Your task to perform on an android device: Open my contact list Image 0: 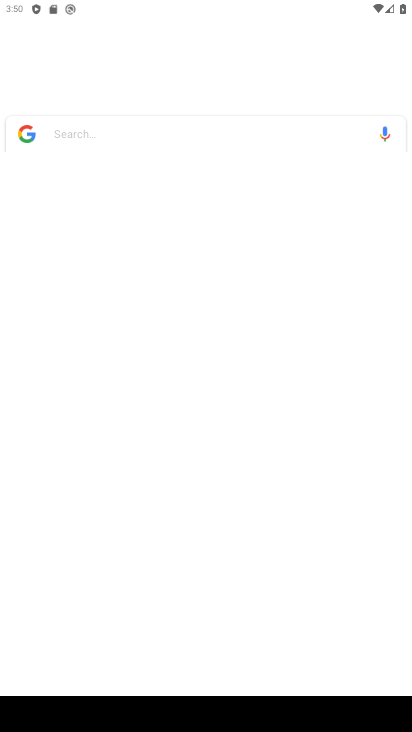
Step 0: press home button
Your task to perform on an android device: Open my contact list Image 1: 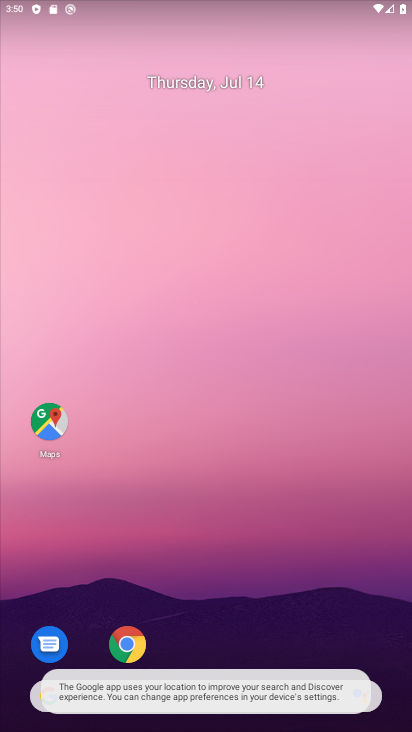
Step 1: drag from (273, 615) to (238, 202)
Your task to perform on an android device: Open my contact list Image 2: 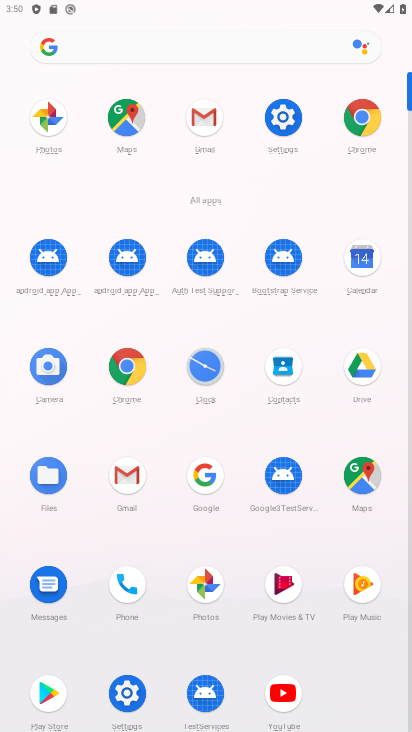
Step 2: click (281, 373)
Your task to perform on an android device: Open my contact list Image 3: 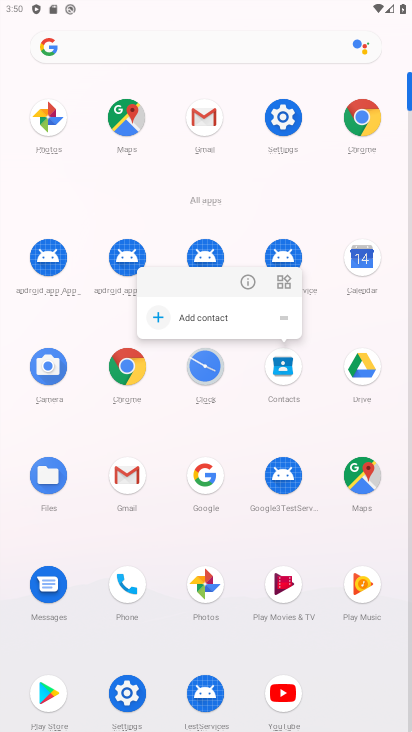
Step 3: click (281, 373)
Your task to perform on an android device: Open my contact list Image 4: 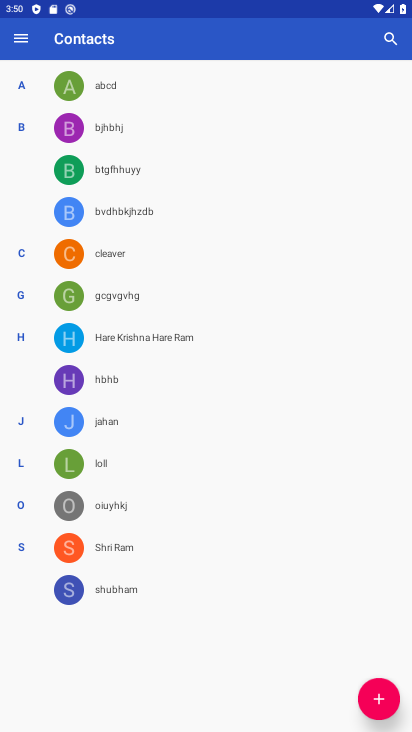
Step 4: task complete